Your task to perform on an android device: open app "Flipkart Online Shopping App" (install if not already installed) Image 0: 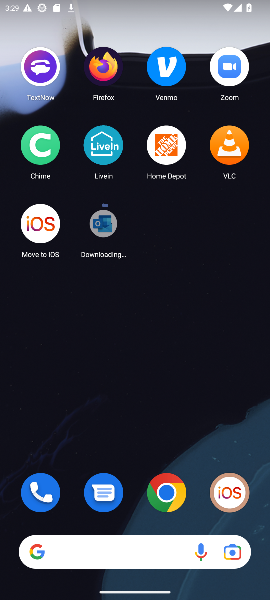
Step 0: drag from (132, 521) to (147, 57)
Your task to perform on an android device: open app "Flipkart Online Shopping App" (install if not already installed) Image 1: 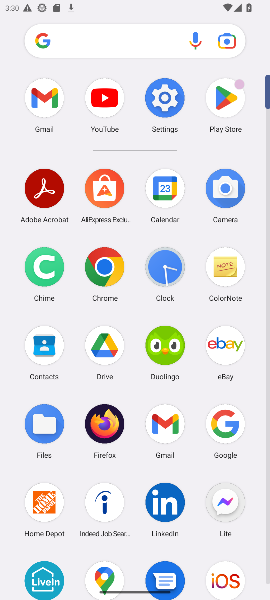
Step 1: click (232, 97)
Your task to perform on an android device: open app "Flipkart Online Shopping App" (install if not already installed) Image 2: 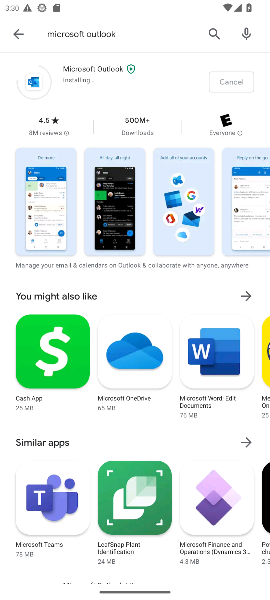
Step 2: click (209, 37)
Your task to perform on an android device: open app "Flipkart Online Shopping App" (install if not already installed) Image 3: 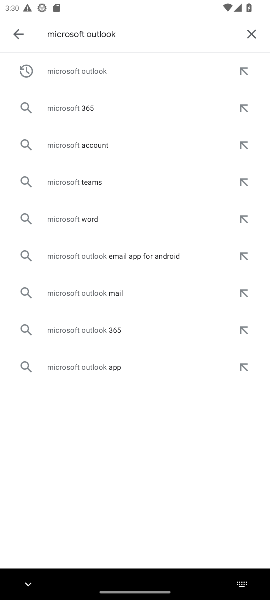
Step 3: click (252, 37)
Your task to perform on an android device: open app "Flipkart Online Shopping App" (install if not already installed) Image 4: 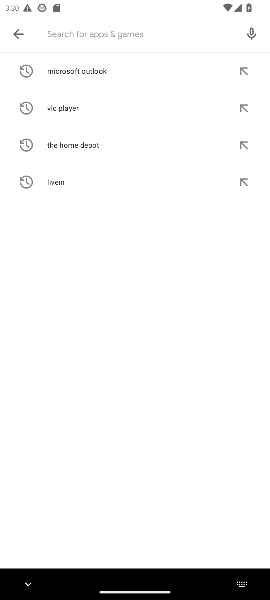
Step 4: type "flipkart"
Your task to perform on an android device: open app "Flipkart Online Shopping App" (install if not already installed) Image 5: 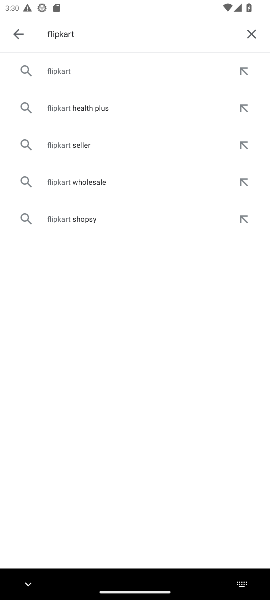
Step 5: click (32, 62)
Your task to perform on an android device: open app "Flipkart Online Shopping App" (install if not already installed) Image 6: 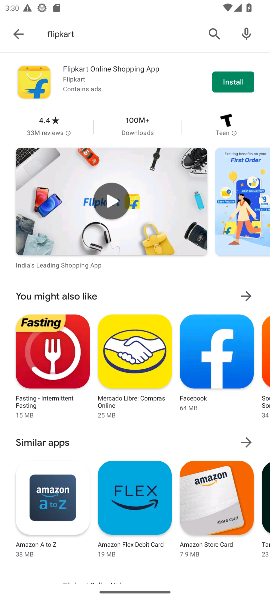
Step 6: click (217, 84)
Your task to perform on an android device: open app "Flipkart Online Shopping App" (install if not already installed) Image 7: 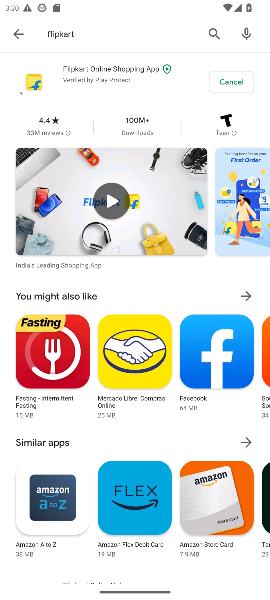
Step 7: task complete